Your task to perform on an android device: Show me the alarms in the clock app Image 0: 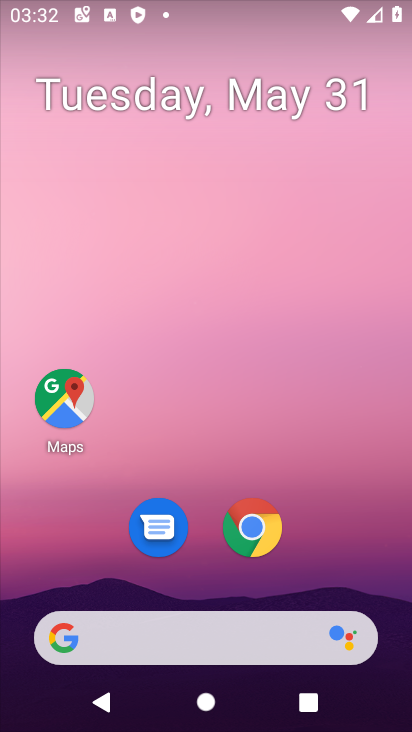
Step 0: drag from (394, 650) to (313, 107)
Your task to perform on an android device: Show me the alarms in the clock app Image 1: 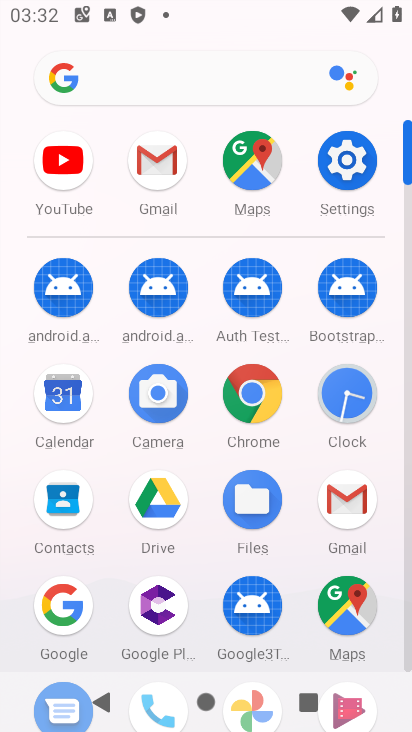
Step 1: click (406, 654)
Your task to perform on an android device: Show me the alarms in the clock app Image 2: 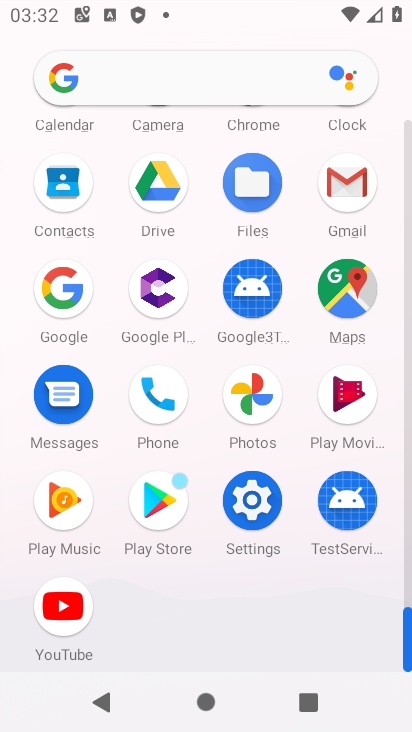
Step 2: click (408, 183)
Your task to perform on an android device: Show me the alarms in the clock app Image 3: 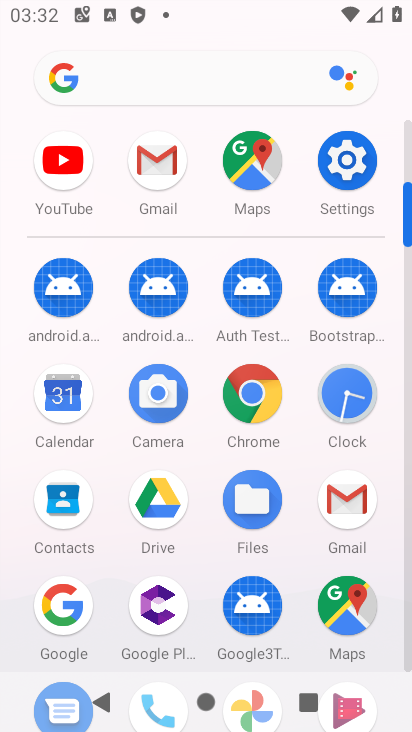
Step 3: click (346, 392)
Your task to perform on an android device: Show me the alarms in the clock app Image 4: 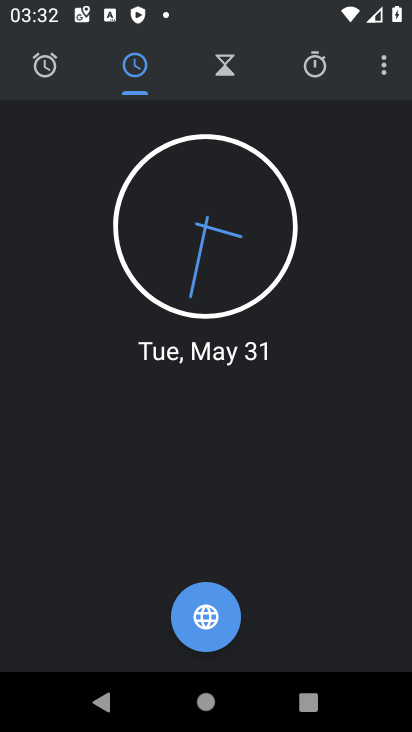
Step 4: click (48, 64)
Your task to perform on an android device: Show me the alarms in the clock app Image 5: 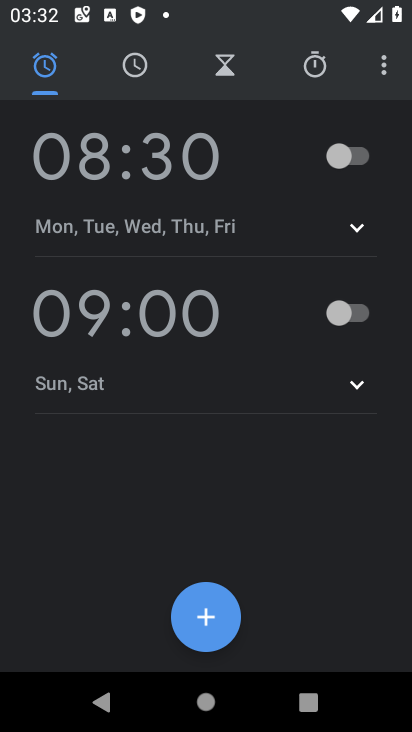
Step 5: task complete